Your task to perform on an android device: Go to settings Image 0: 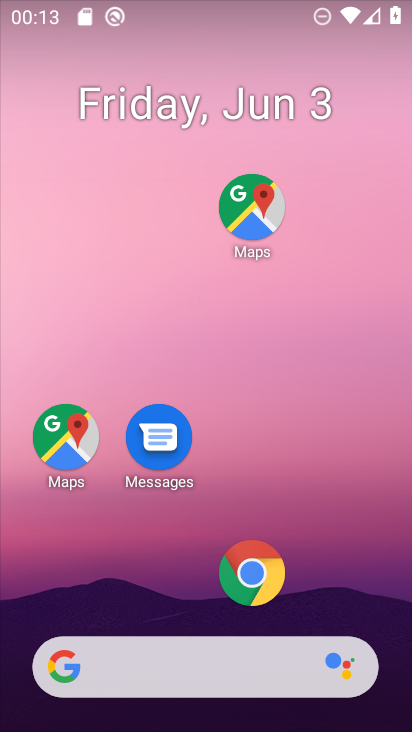
Step 0: drag from (318, 590) to (318, 71)
Your task to perform on an android device: Go to settings Image 1: 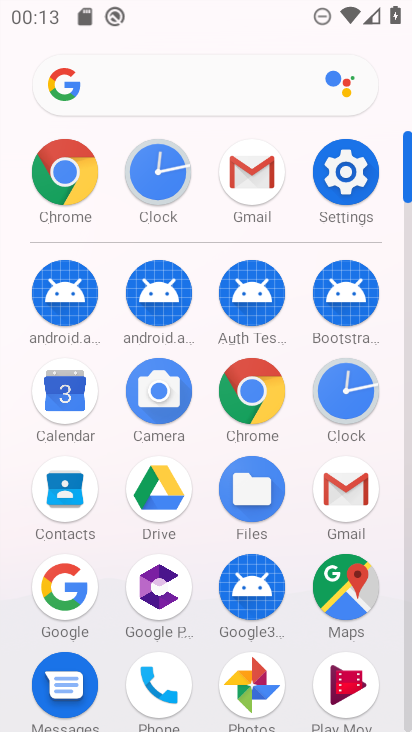
Step 1: click (348, 185)
Your task to perform on an android device: Go to settings Image 2: 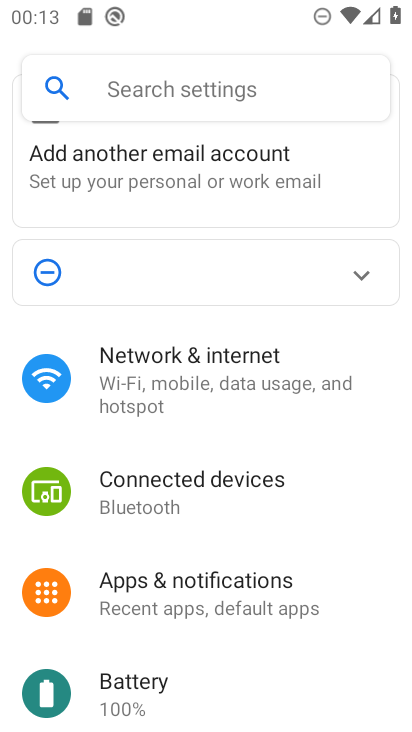
Step 2: task complete